Your task to perform on an android device: Search for sushi restaurants on Maps Image 0: 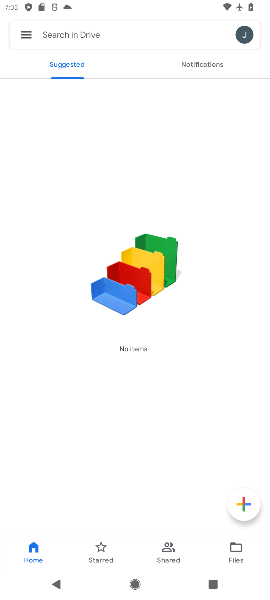
Step 0: press home button
Your task to perform on an android device: Search for sushi restaurants on Maps Image 1: 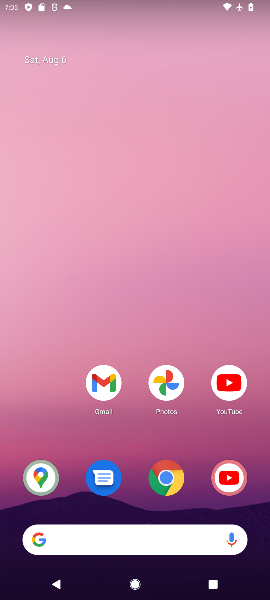
Step 1: click (35, 484)
Your task to perform on an android device: Search for sushi restaurants on Maps Image 2: 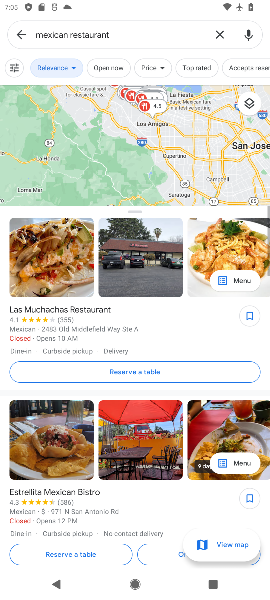
Step 2: click (218, 34)
Your task to perform on an android device: Search for sushi restaurants on Maps Image 3: 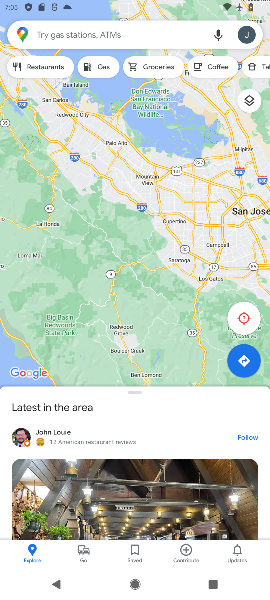
Step 3: type "sushi restaurants"
Your task to perform on an android device: Search for sushi restaurants on Maps Image 4: 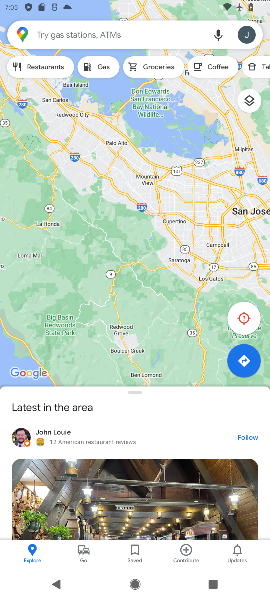
Step 4: click (73, 34)
Your task to perform on an android device: Search for sushi restaurants on Maps Image 5: 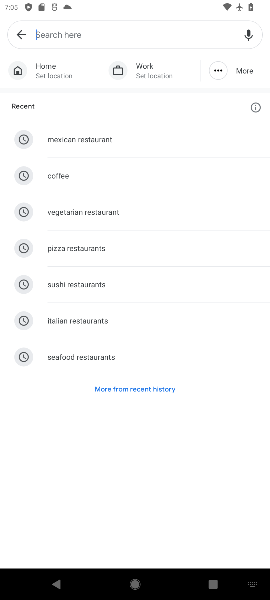
Step 5: click (78, 282)
Your task to perform on an android device: Search for sushi restaurants on Maps Image 6: 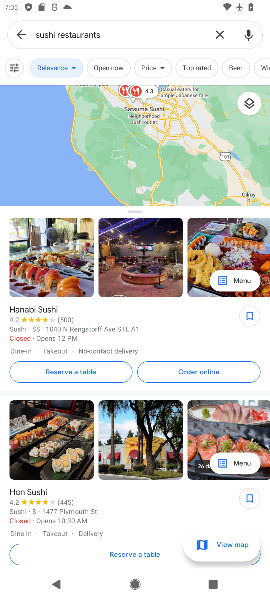
Step 6: task complete